Your task to perform on an android device: find snoozed emails in the gmail app Image 0: 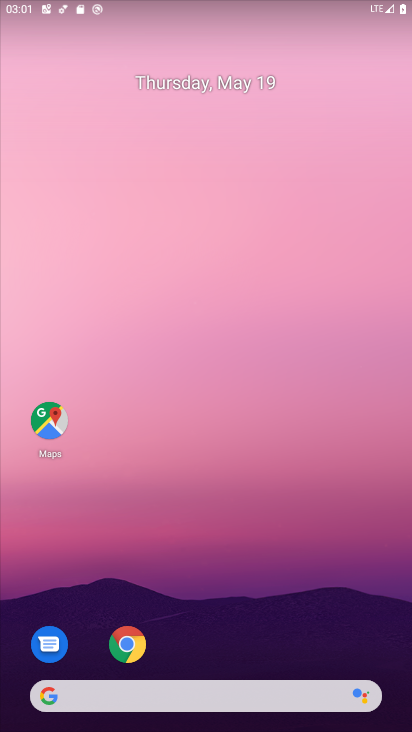
Step 0: drag from (220, 606) to (283, 209)
Your task to perform on an android device: find snoozed emails in the gmail app Image 1: 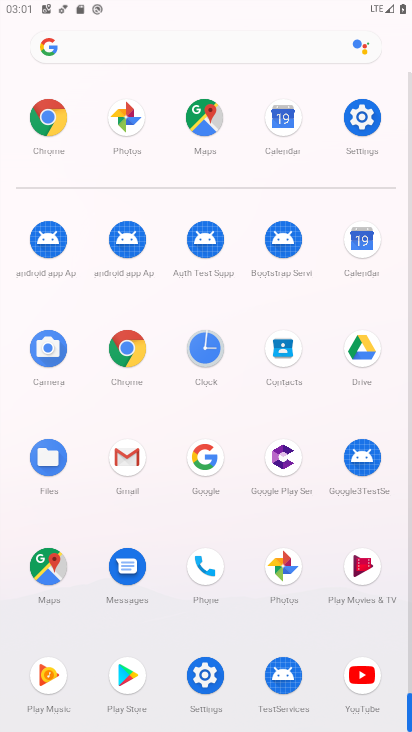
Step 1: click (133, 463)
Your task to perform on an android device: find snoozed emails in the gmail app Image 2: 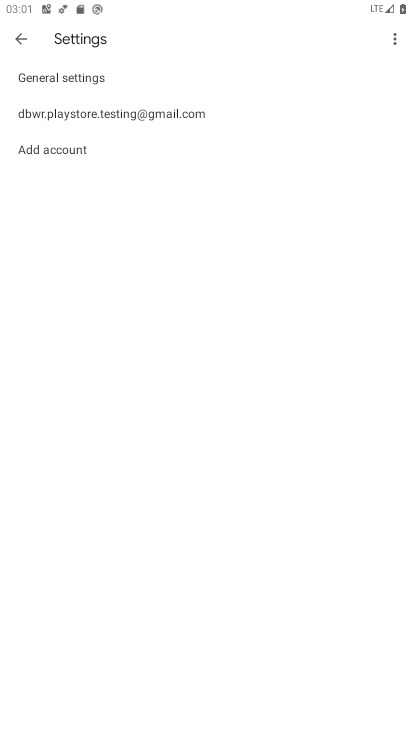
Step 2: click (20, 44)
Your task to perform on an android device: find snoozed emails in the gmail app Image 3: 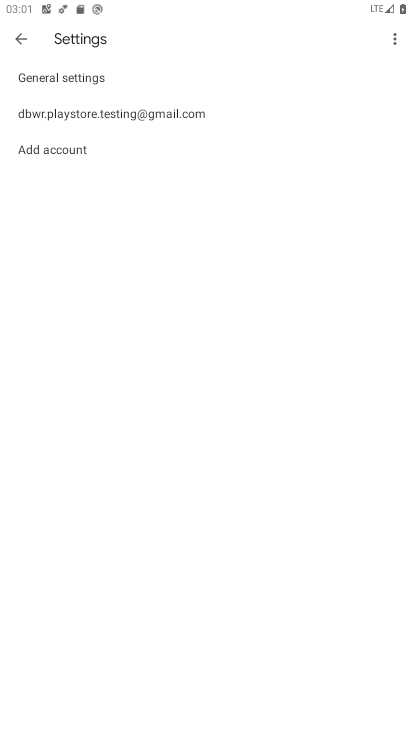
Step 3: click (18, 29)
Your task to perform on an android device: find snoozed emails in the gmail app Image 4: 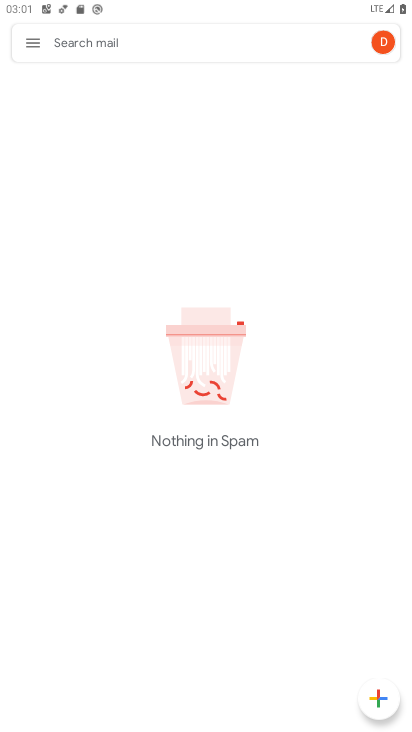
Step 4: click (21, 46)
Your task to perform on an android device: find snoozed emails in the gmail app Image 5: 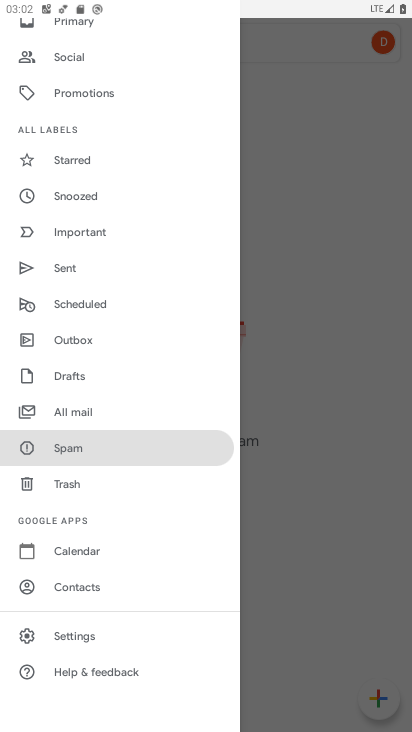
Step 5: click (83, 204)
Your task to perform on an android device: find snoozed emails in the gmail app Image 6: 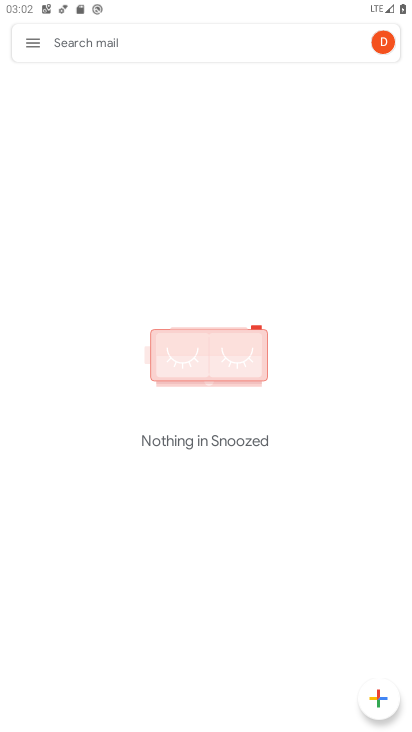
Step 6: click (25, 33)
Your task to perform on an android device: find snoozed emails in the gmail app Image 7: 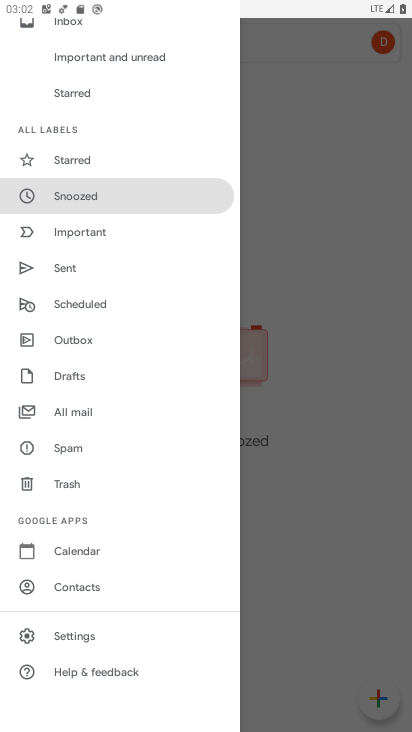
Step 7: click (174, 179)
Your task to perform on an android device: find snoozed emails in the gmail app Image 8: 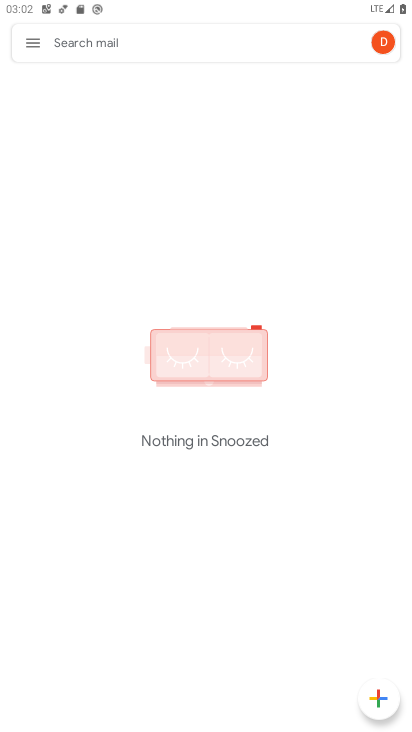
Step 8: task complete